Your task to perform on an android device: View the shopping cart on target. Add logitech g933 to the cart on target, then select checkout. Image 0: 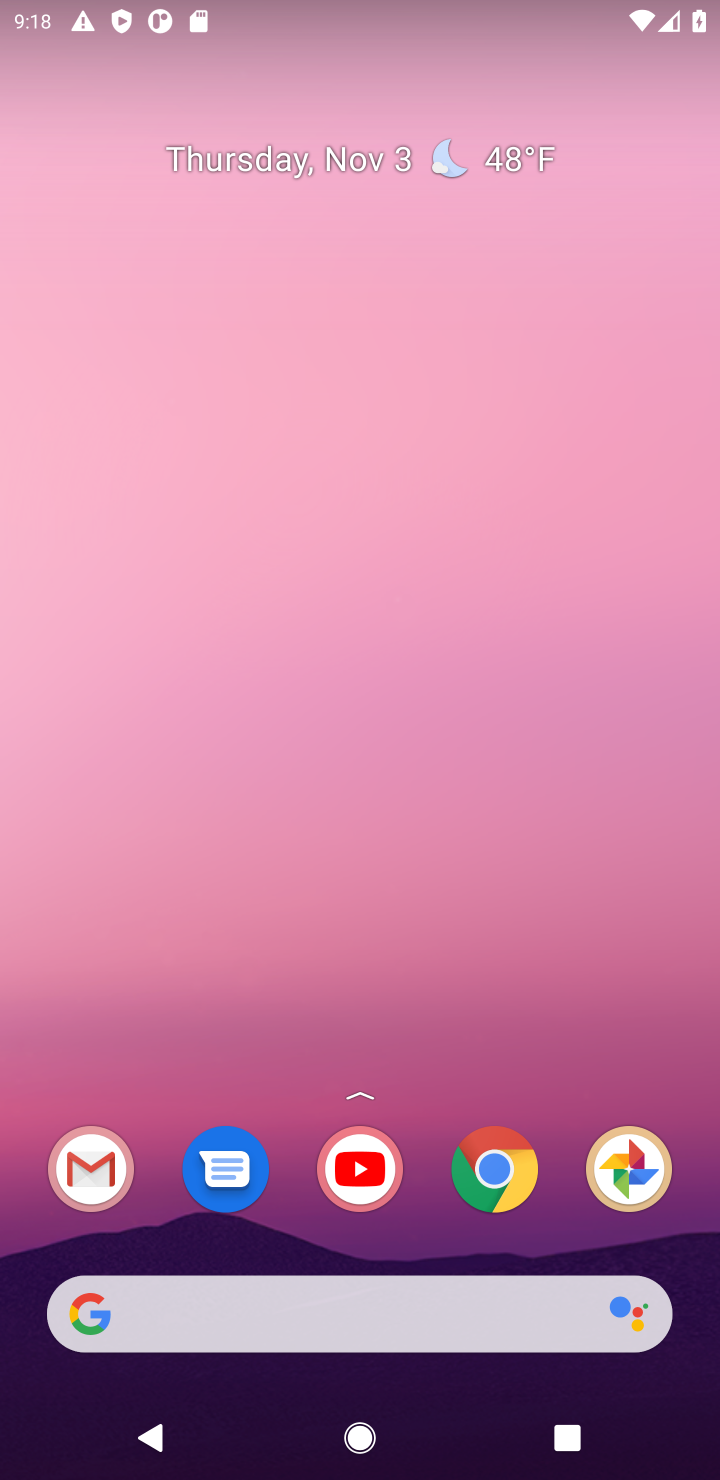
Step 0: drag from (431, 1084) to (375, 106)
Your task to perform on an android device: View the shopping cart on target. Add logitech g933 to the cart on target, then select checkout. Image 1: 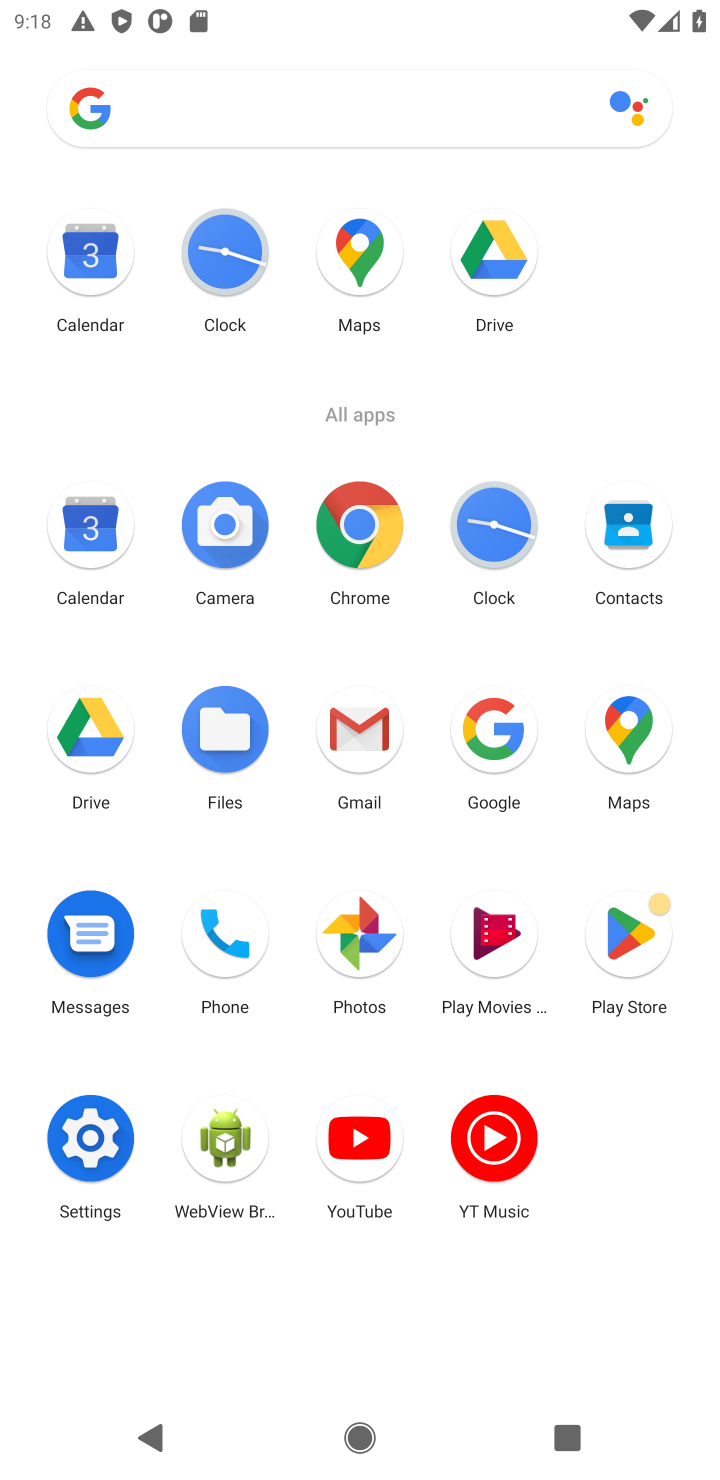
Step 1: click (381, 534)
Your task to perform on an android device: View the shopping cart on target. Add logitech g933 to the cart on target, then select checkout. Image 2: 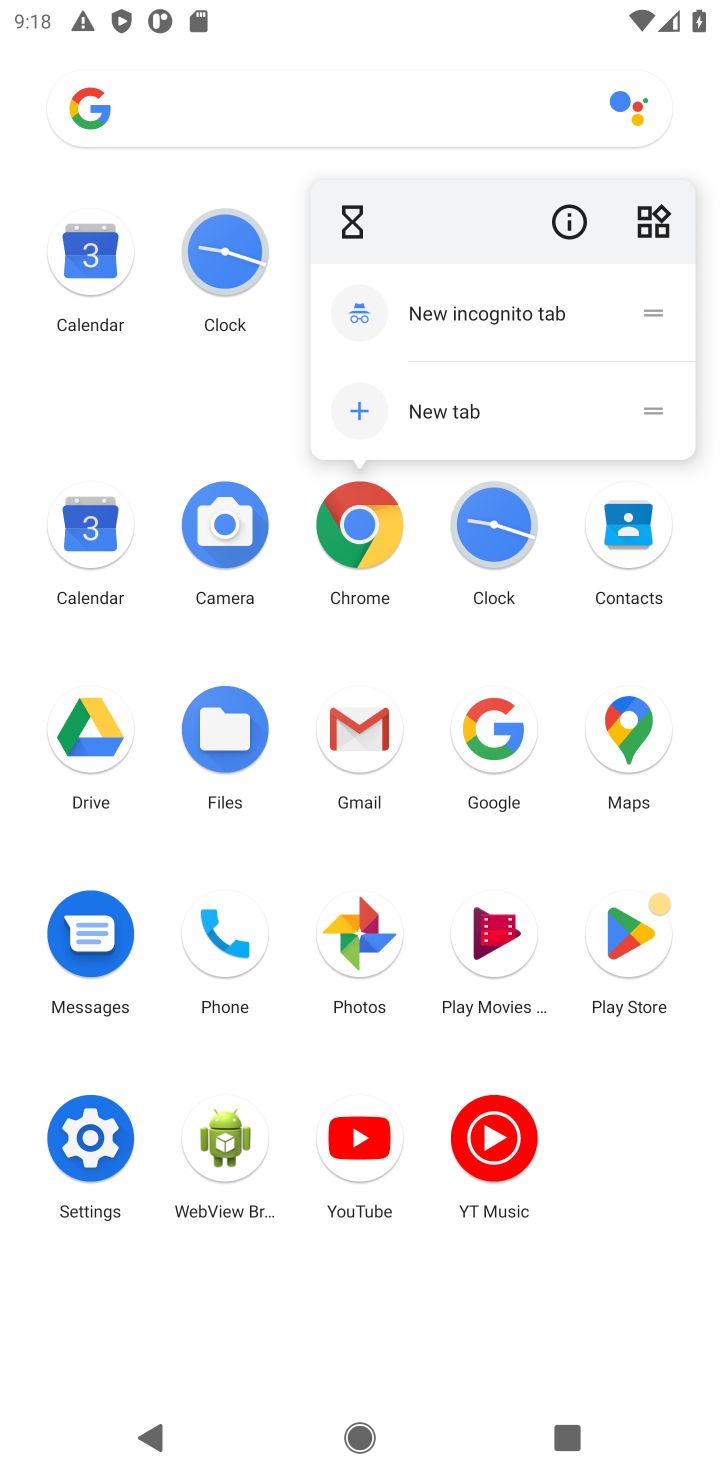
Step 2: click (369, 532)
Your task to perform on an android device: View the shopping cart on target. Add logitech g933 to the cart on target, then select checkout. Image 3: 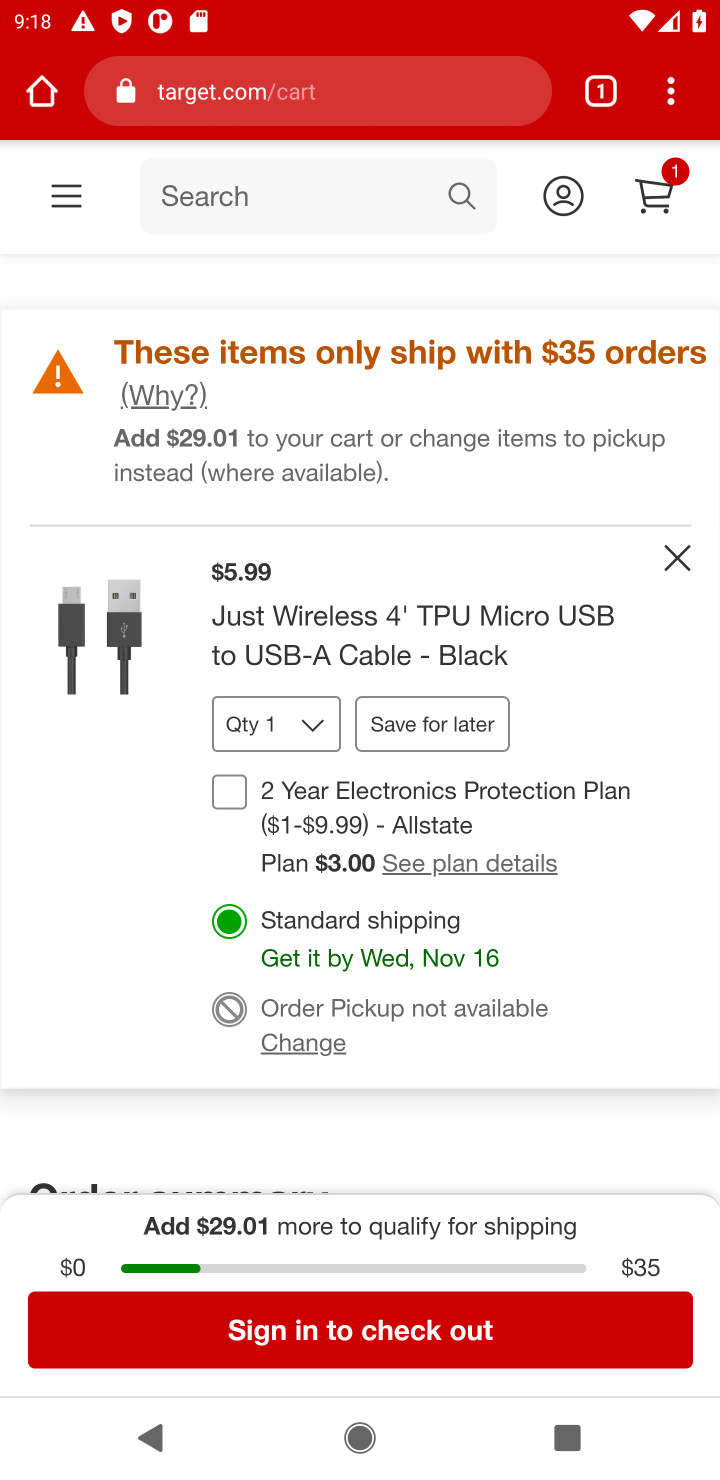
Step 3: click (371, 100)
Your task to perform on an android device: View the shopping cart on target. Add logitech g933 to the cart on target, then select checkout. Image 4: 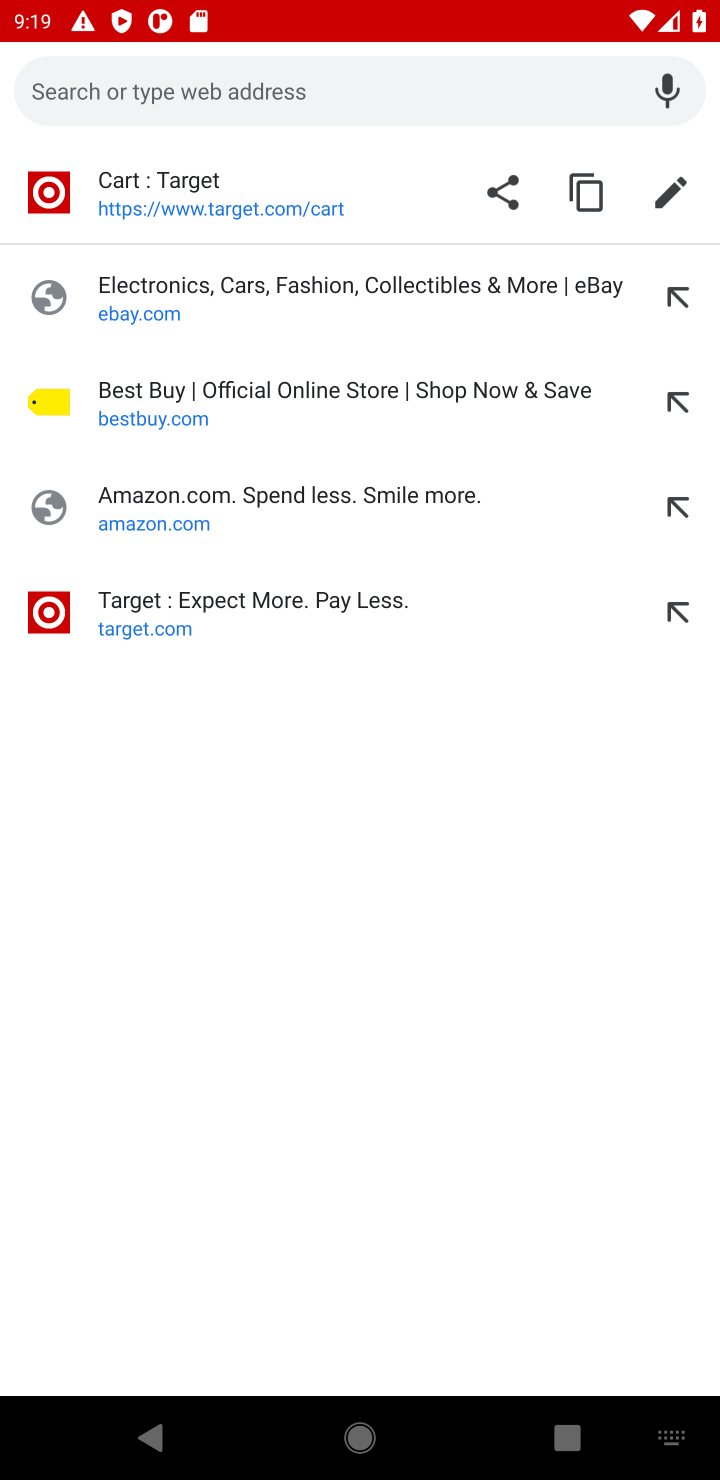
Step 4: type "target.com"
Your task to perform on an android device: View the shopping cart on target. Add logitech g933 to the cart on target, then select checkout. Image 5: 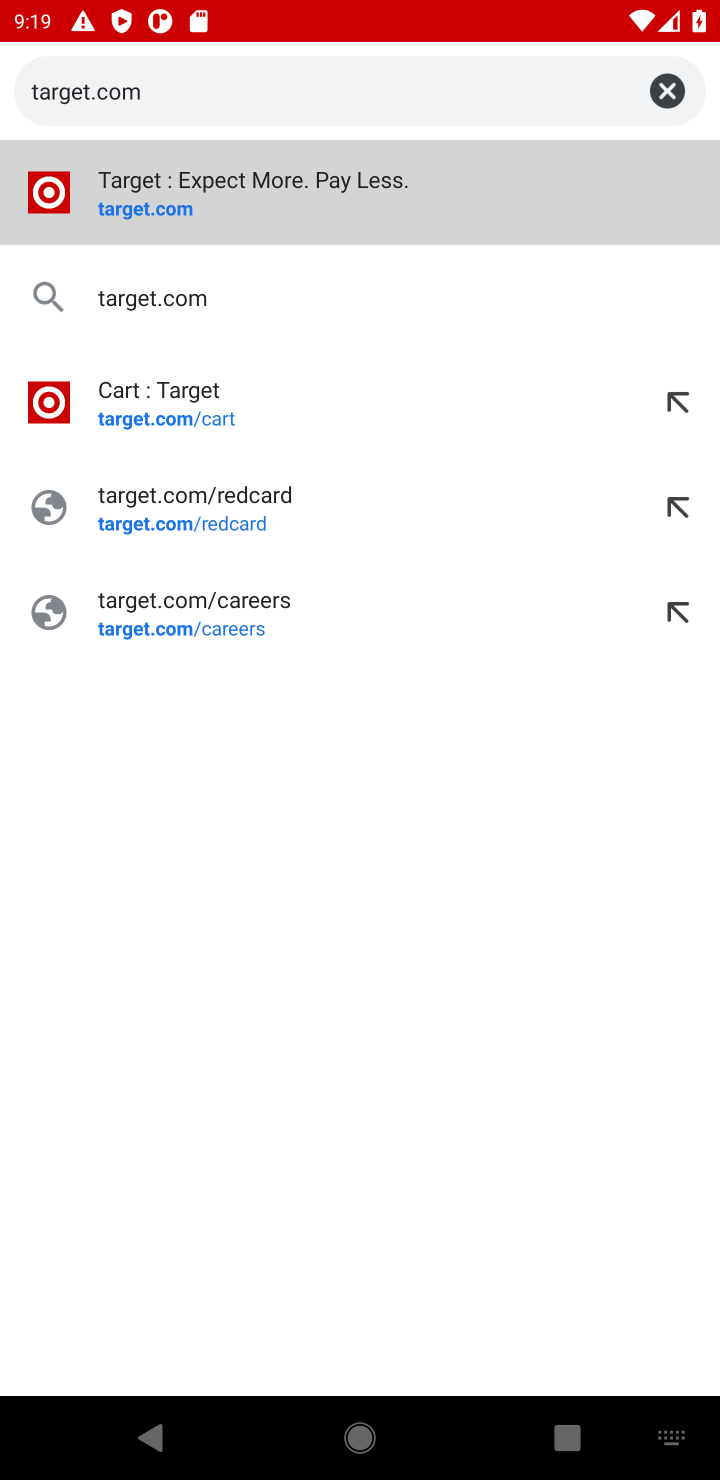
Step 5: press enter
Your task to perform on an android device: View the shopping cart on target. Add logitech g933 to the cart on target, then select checkout. Image 6: 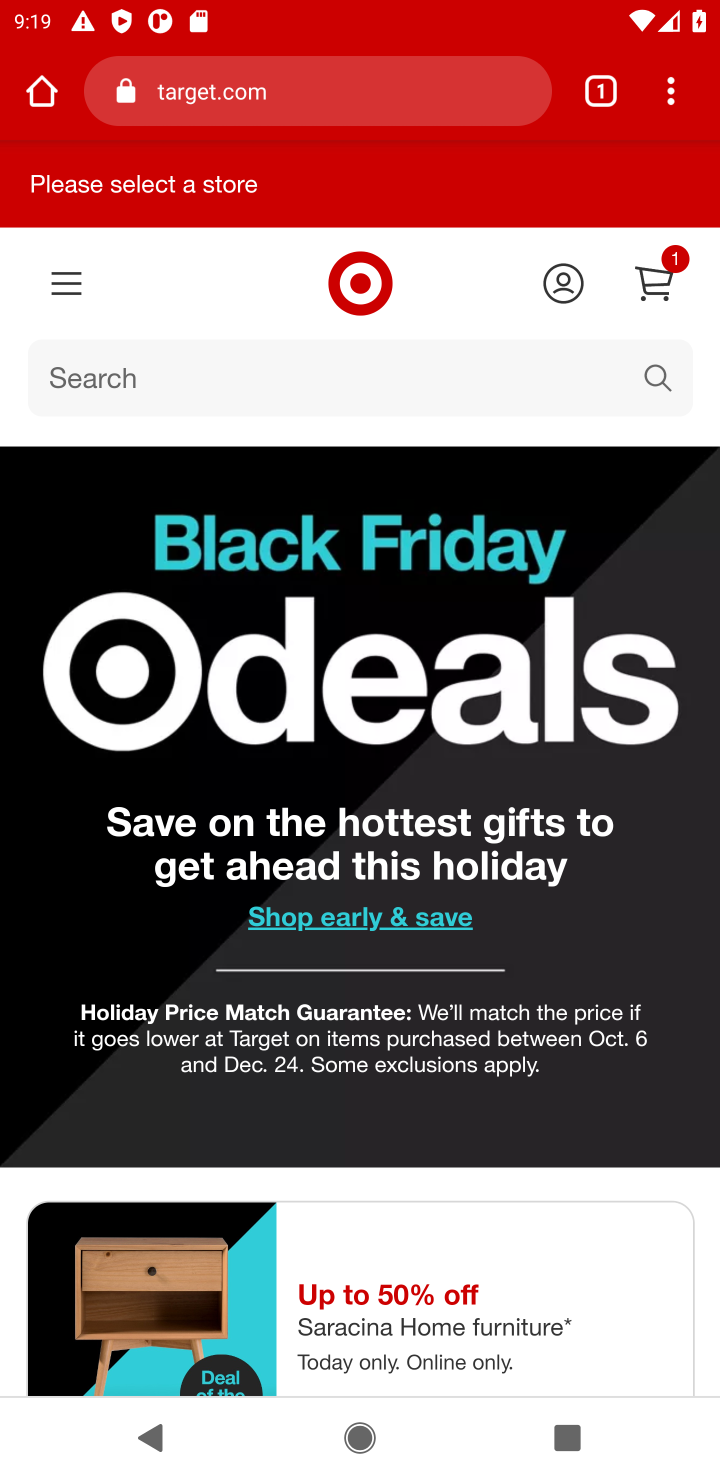
Step 6: click (642, 282)
Your task to perform on an android device: View the shopping cart on target. Add logitech g933 to the cart on target, then select checkout. Image 7: 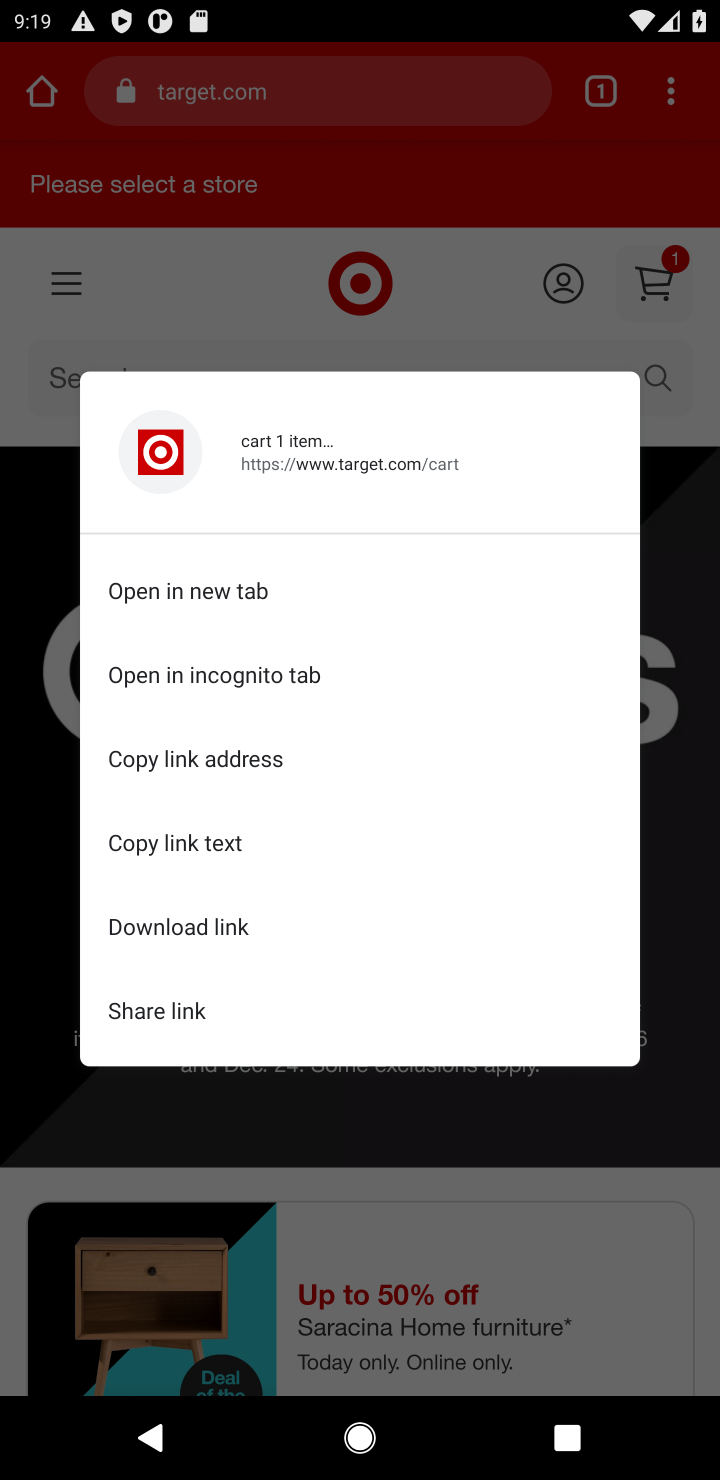
Step 7: click (642, 282)
Your task to perform on an android device: View the shopping cart on target. Add logitech g933 to the cart on target, then select checkout. Image 8: 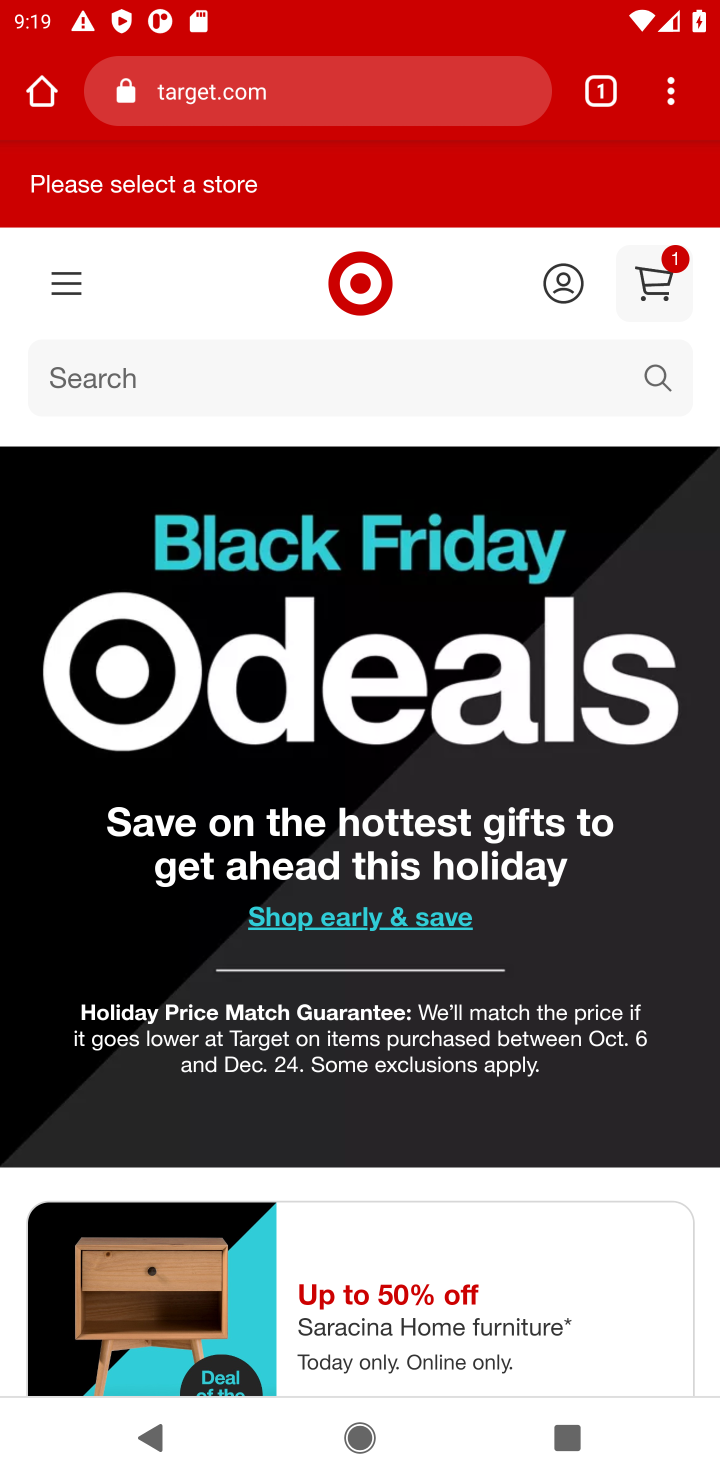
Step 8: click (671, 286)
Your task to perform on an android device: View the shopping cart on target. Add logitech g933 to the cart on target, then select checkout. Image 9: 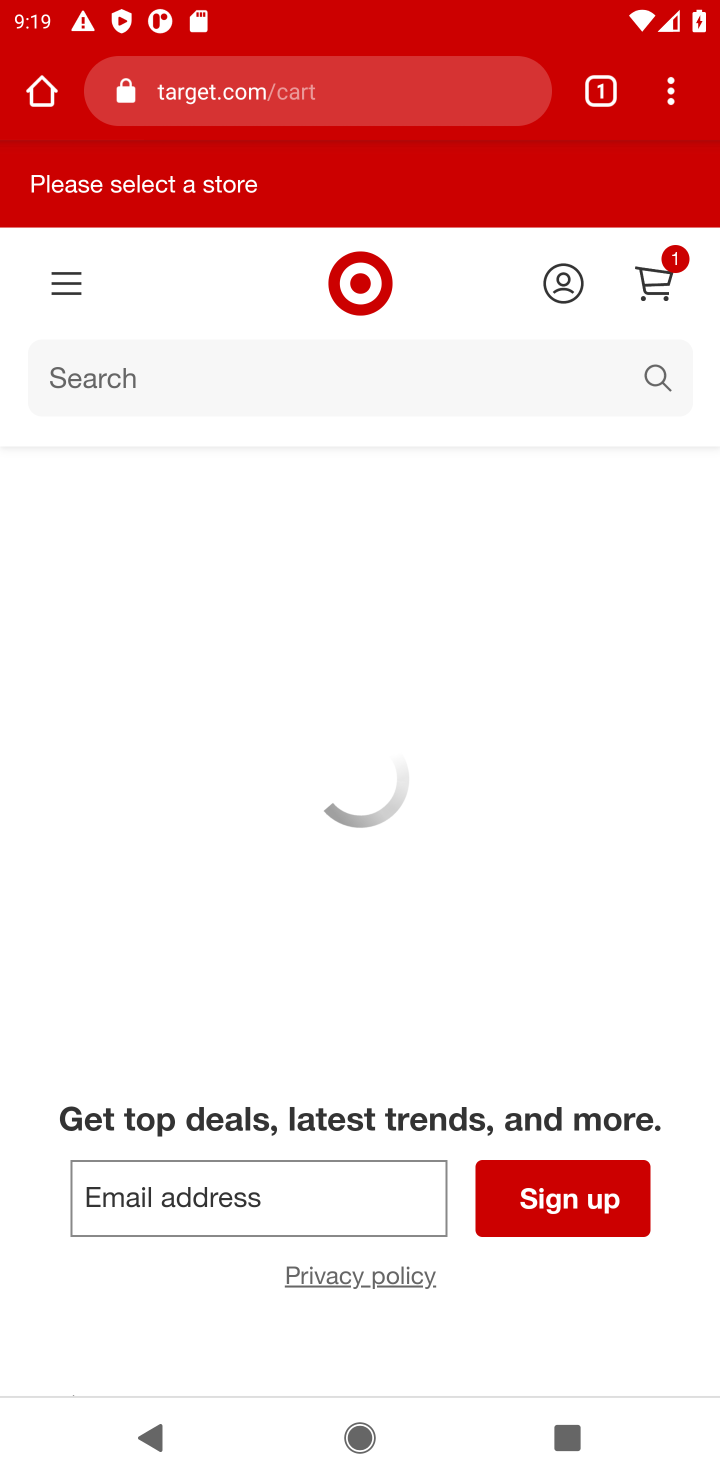
Step 9: click (450, 400)
Your task to perform on an android device: View the shopping cart on target. Add logitech g933 to the cart on target, then select checkout. Image 10: 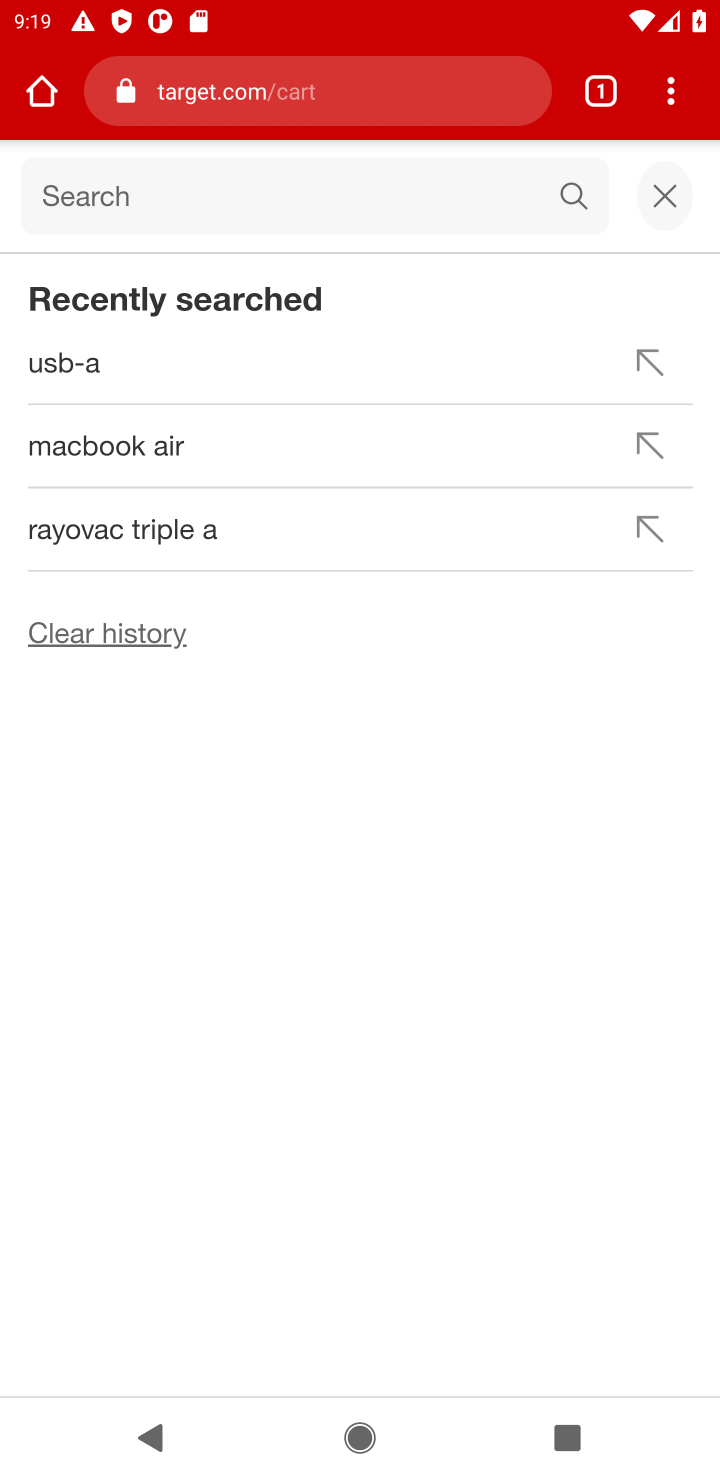
Step 10: type "logitech g933"
Your task to perform on an android device: View the shopping cart on target. Add logitech g933 to the cart on target, then select checkout. Image 11: 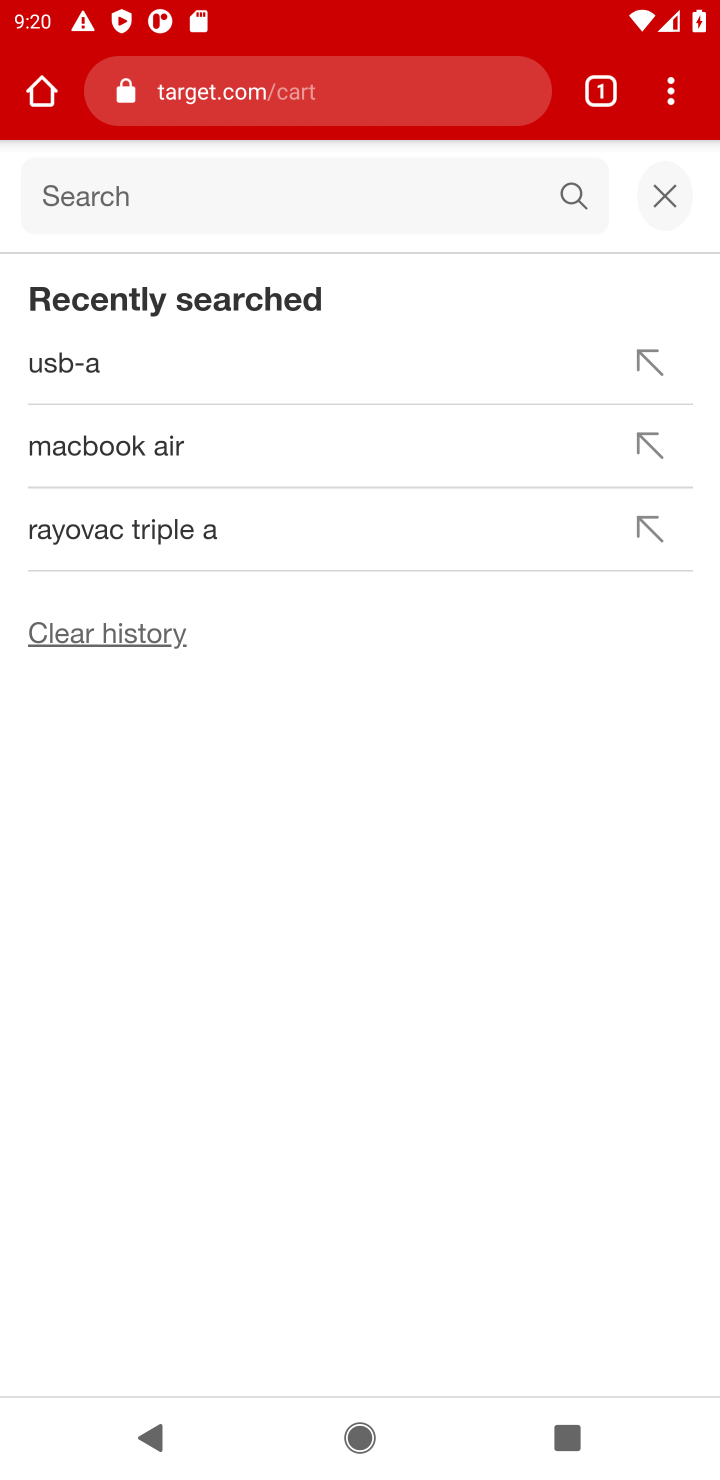
Step 11: press enter
Your task to perform on an android device: View the shopping cart on target. Add logitech g933 to the cart on target, then select checkout. Image 12: 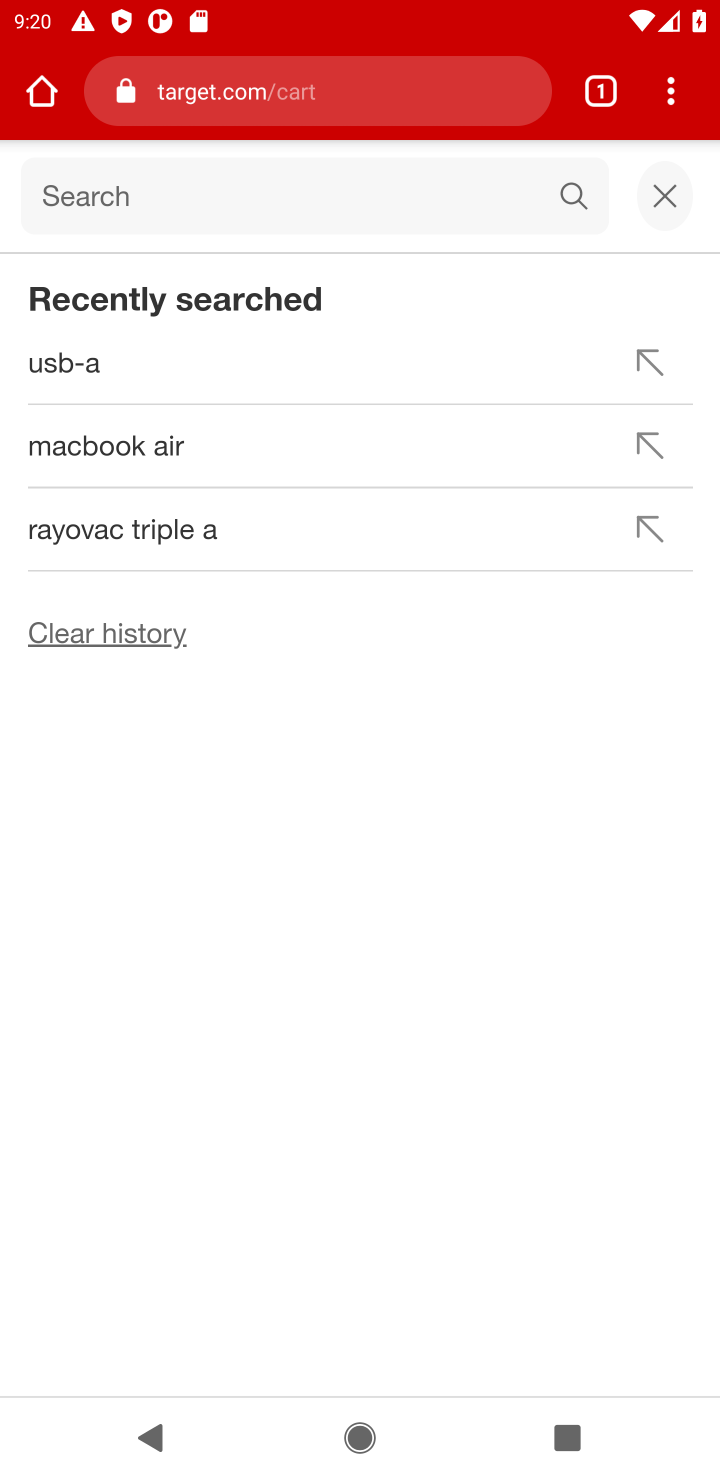
Step 12: click (355, 220)
Your task to perform on an android device: View the shopping cart on target. Add logitech g933 to the cart on target, then select checkout. Image 13: 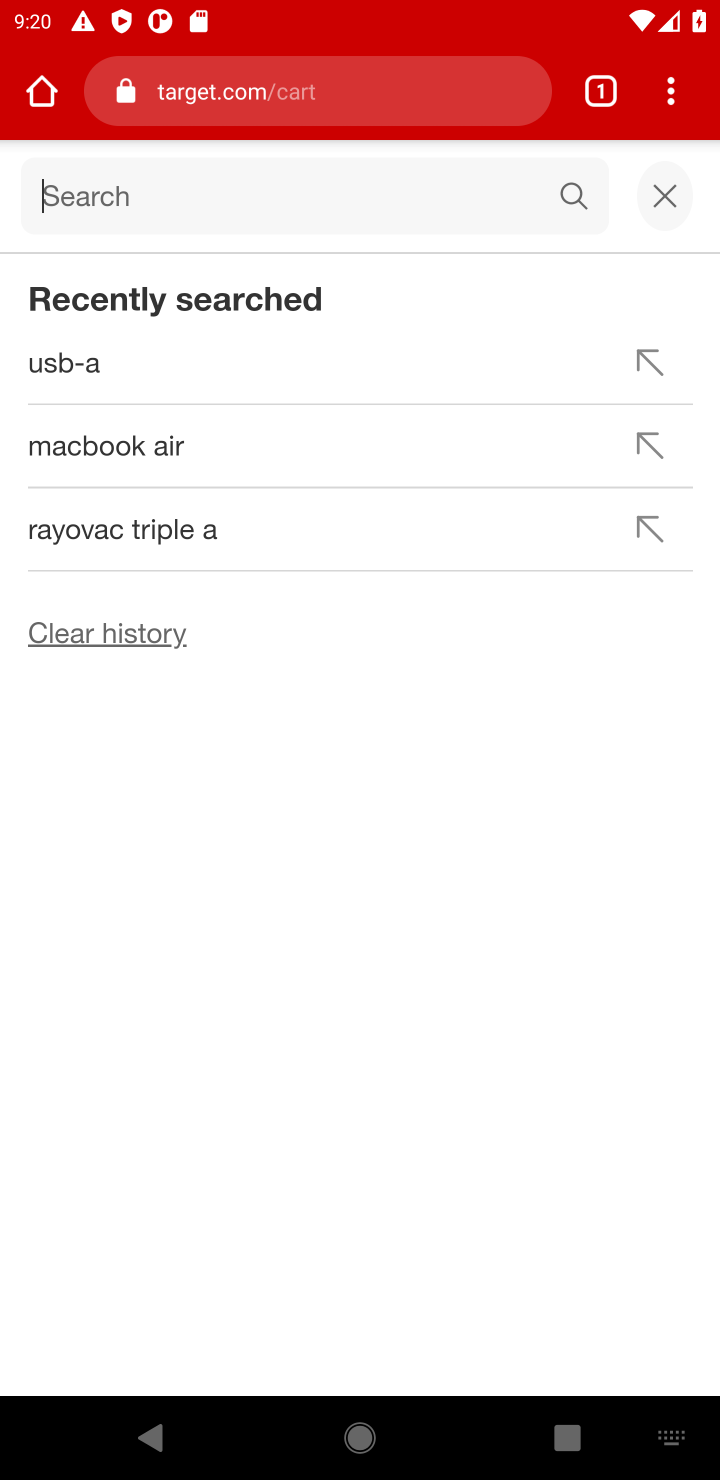
Step 13: type "logitech g933"
Your task to perform on an android device: View the shopping cart on target. Add logitech g933 to the cart on target, then select checkout. Image 14: 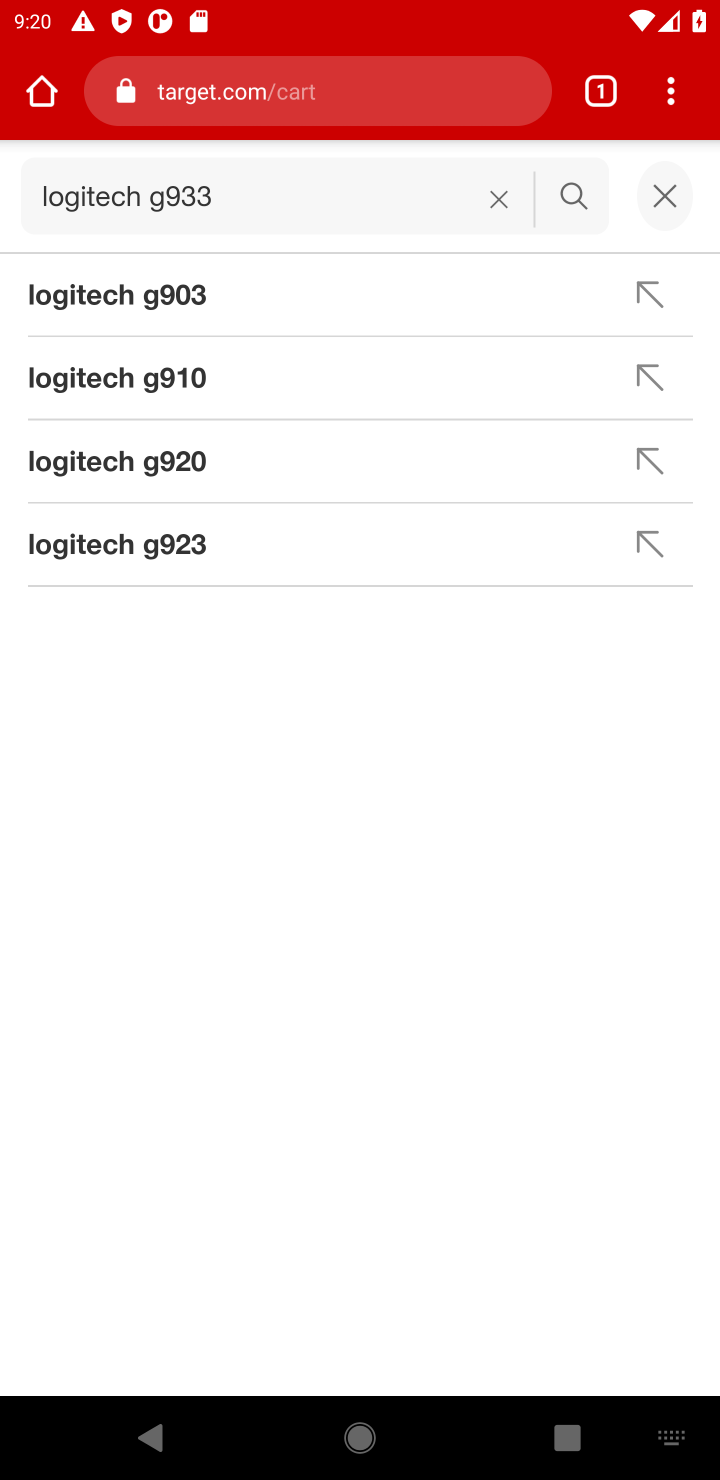
Step 14: press enter
Your task to perform on an android device: View the shopping cart on target. Add logitech g933 to the cart on target, then select checkout. Image 15: 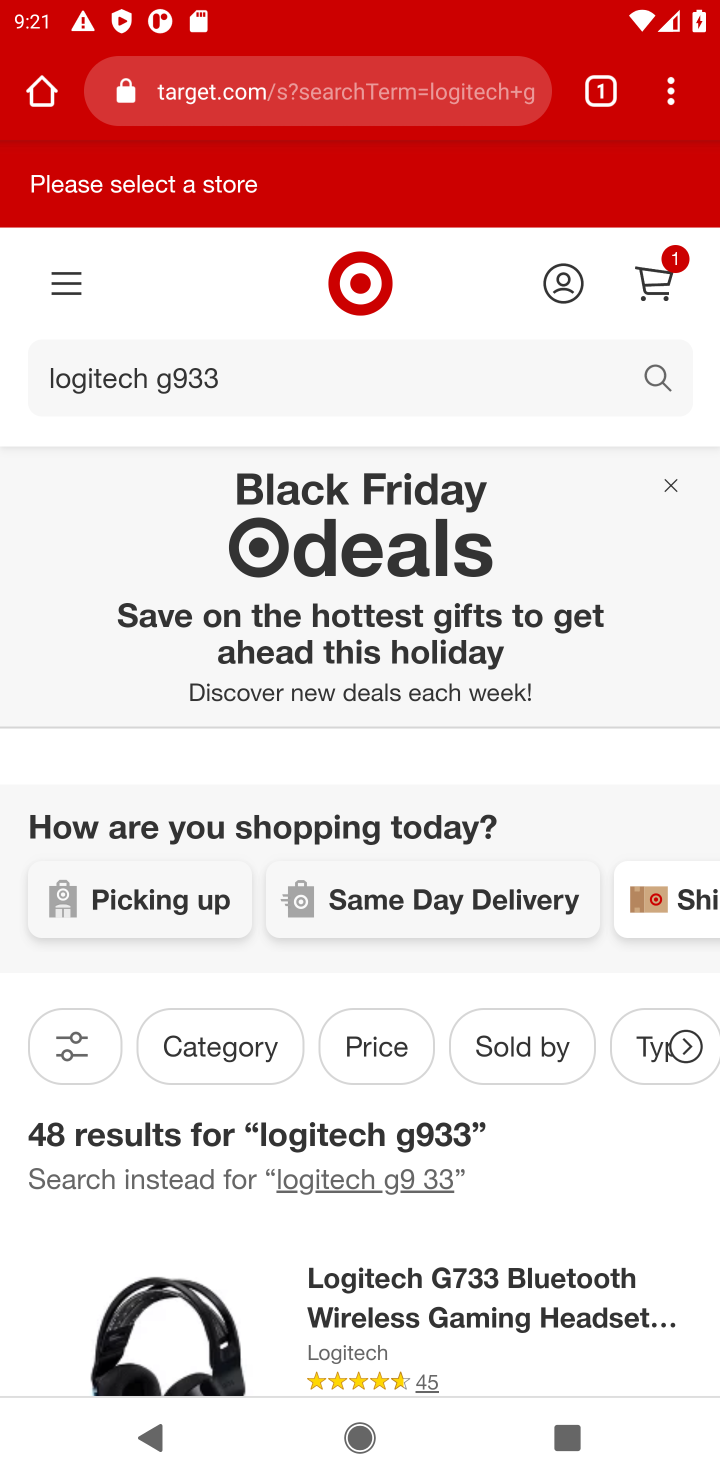
Step 15: drag from (453, 1020) to (420, 364)
Your task to perform on an android device: View the shopping cart on target. Add logitech g933 to the cart on target, then select checkout. Image 16: 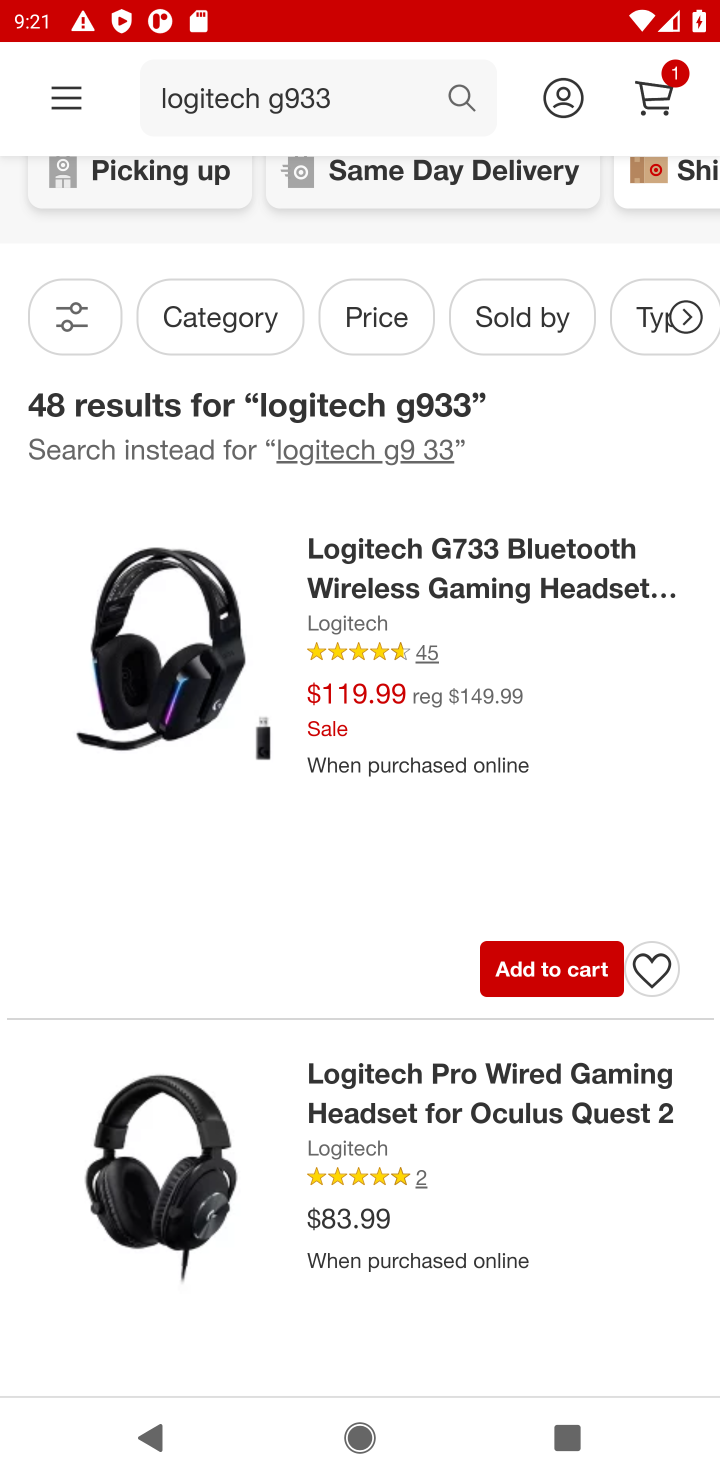
Step 16: click (560, 971)
Your task to perform on an android device: View the shopping cart on target. Add logitech g933 to the cart on target, then select checkout. Image 17: 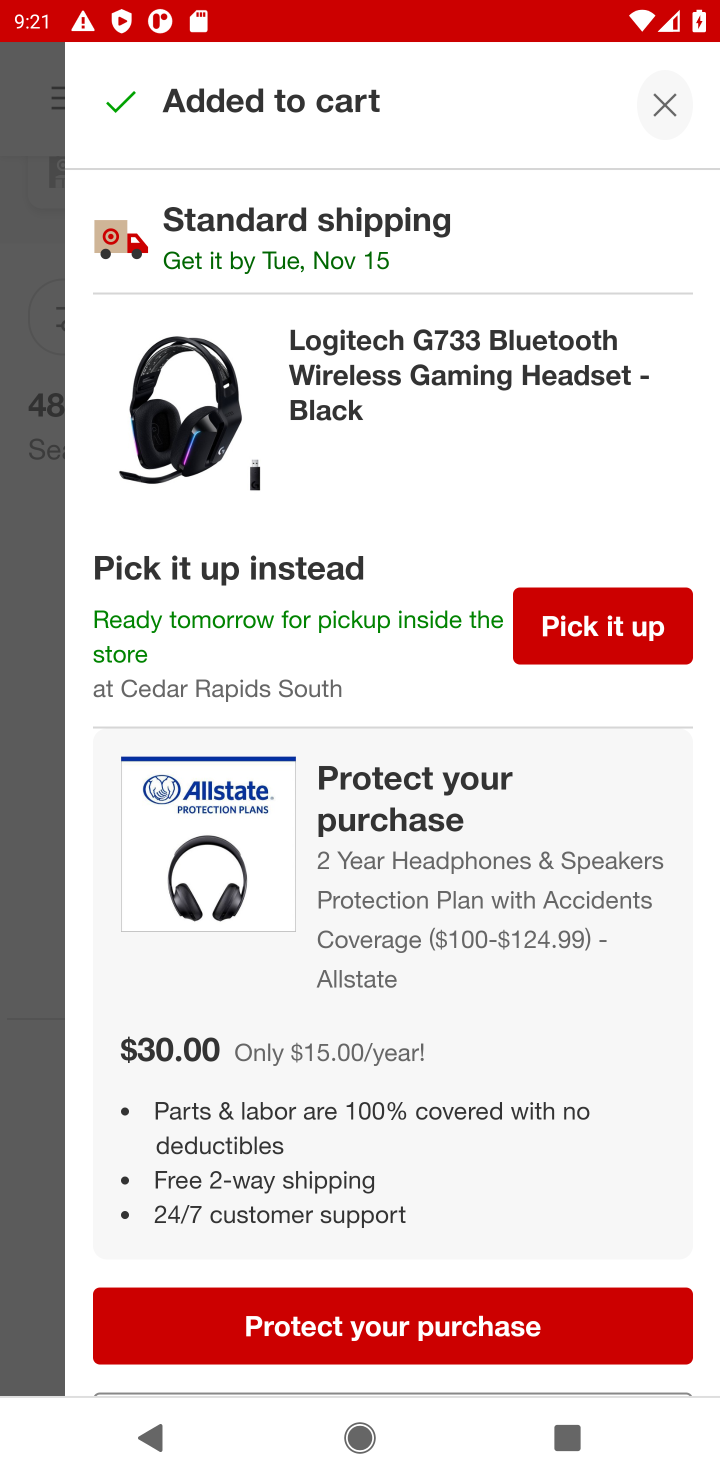
Step 17: drag from (467, 1229) to (477, 713)
Your task to perform on an android device: View the shopping cart on target. Add logitech g933 to the cart on target, then select checkout. Image 18: 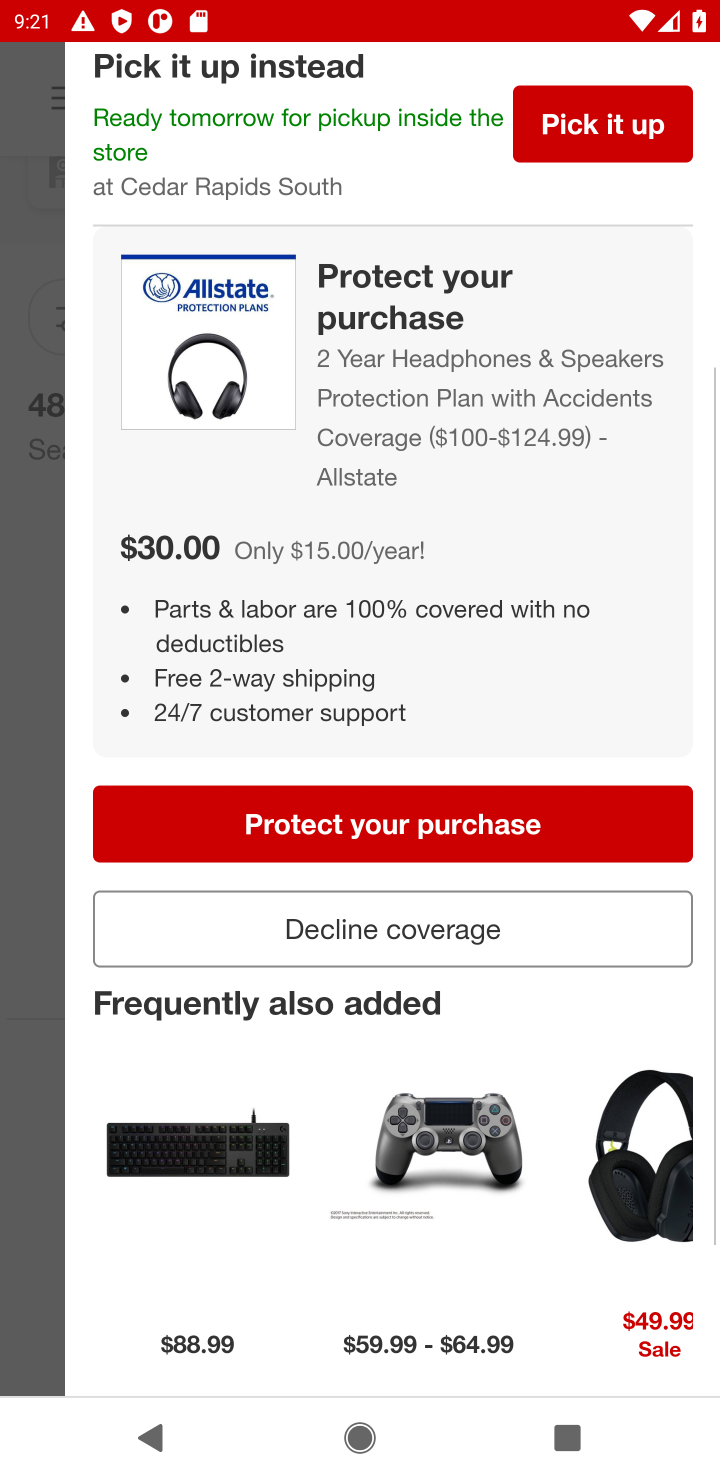
Step 18: drag from (668, 165) to (558, 783)
Your task to perform on an android device: View the shopping cart on target. Add logitech g933 to the cart on target, then select checkout. Image 19: 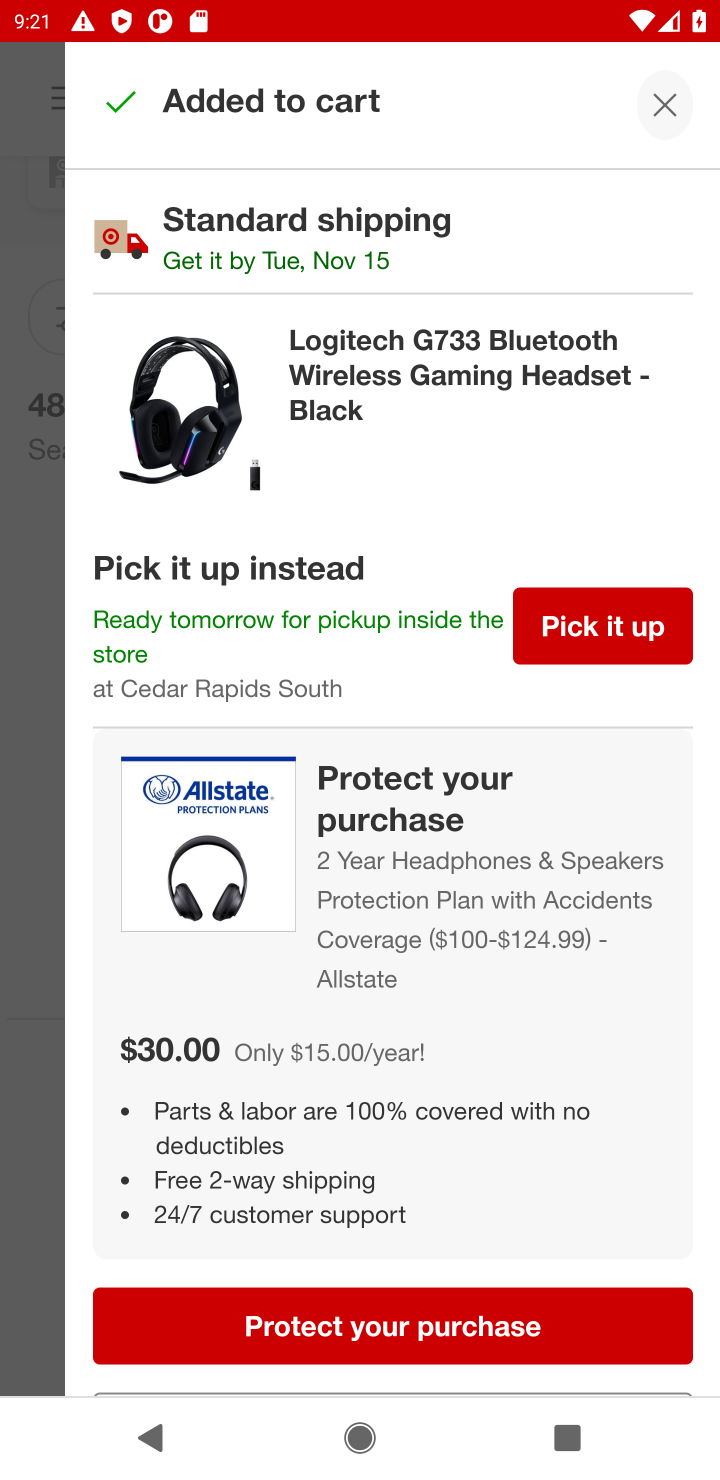
Step 19: click (672, 96)
Your task to perform on an android device: View the shopping cart on target. Add logitech g933 to the cart on target, then select checkout. Image 20: 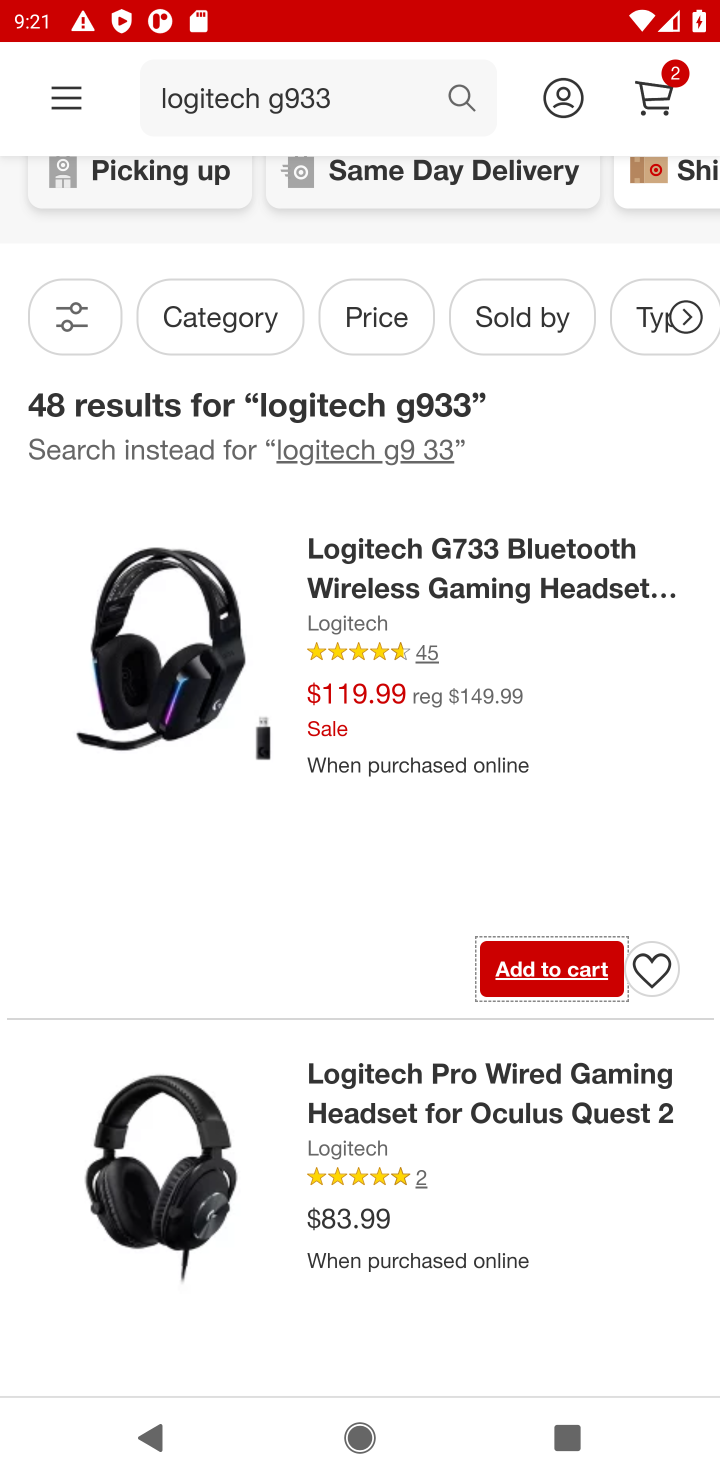
Step 20: click (637, 85)
Your task to perform on an android device: View the shopping cart on target. Add logitech g933 to the cart on target, then select checkout. Image 21: 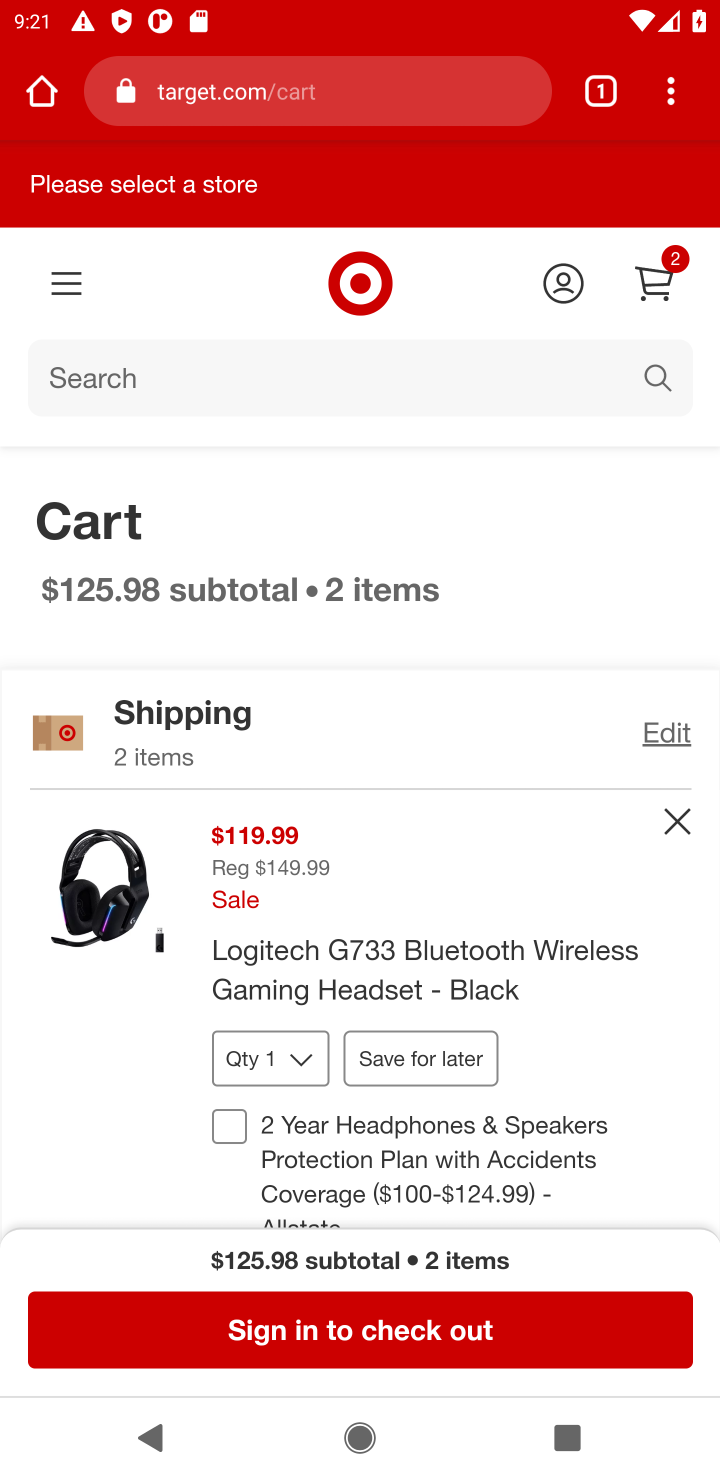
Step 21: click (498, 1335)
Your task to perform on an android device: View the shopping cart on target. Add logitech g933 to the cart on target, then select checkout. Image 22: 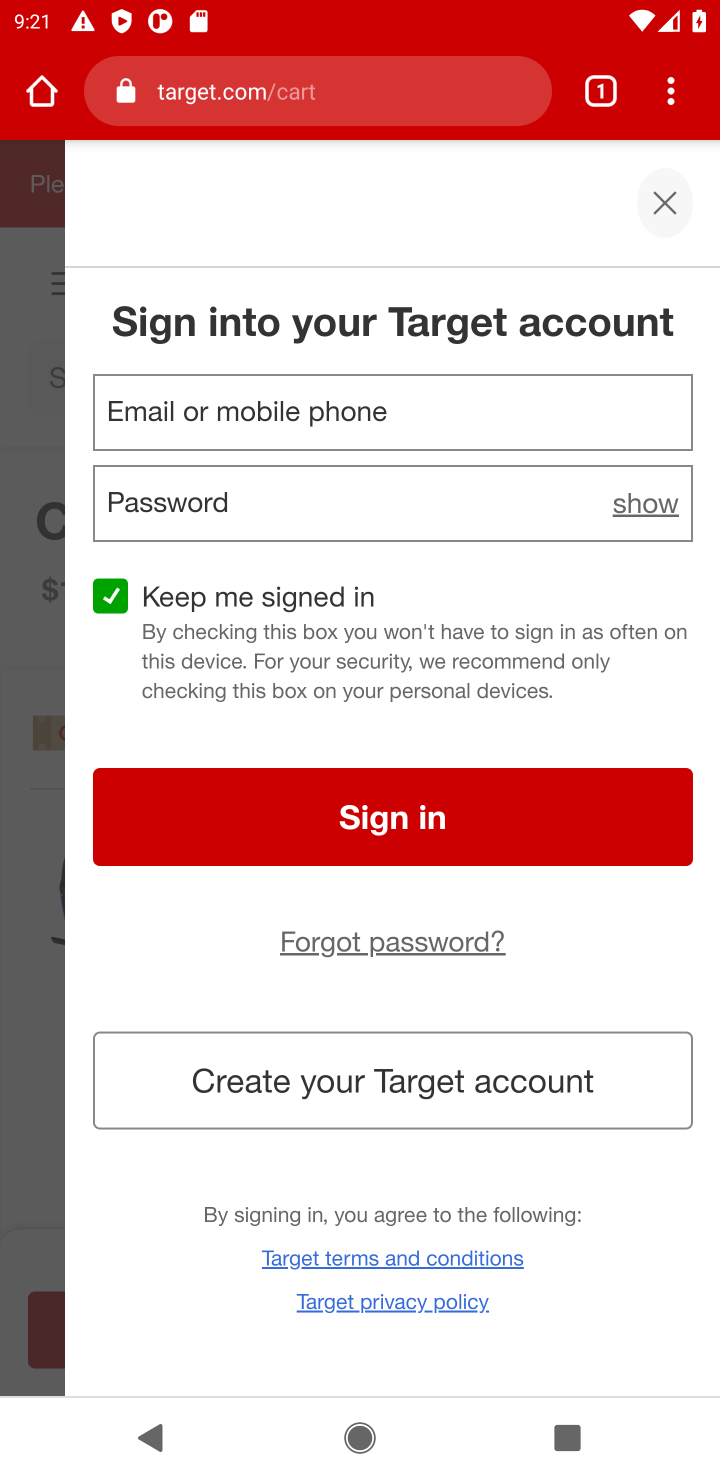
Step 22: task complete